Your task to perform on an android device: turn off javascript in the chrome app Image 0: 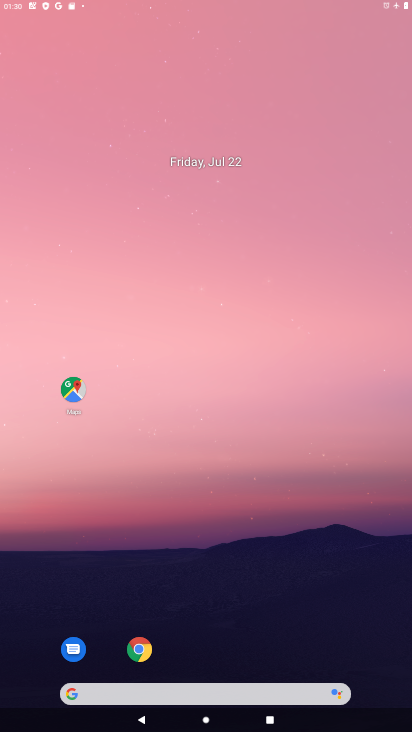
Step 0: drag from (325, 615) to (333, 194)
Your task to perform on an android device: turn off javascript in the chrome app Image 1: 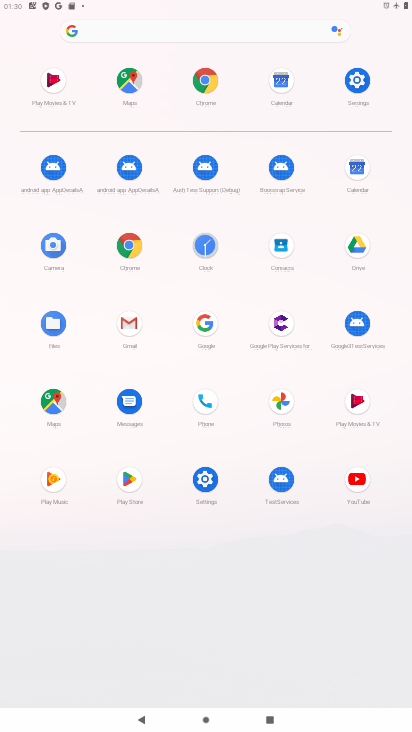
Step 1: click (206, 81)
Your task to perform on an android device: turn off javascript in the chrome app Image 2: 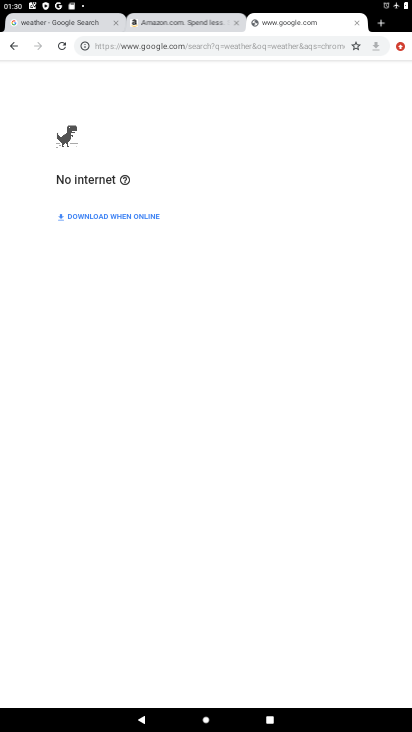
Step 2: drag from (405, 41) to (301, 307)
Your task to perform on an android device: turn off javascript in the chrome app Image 3: 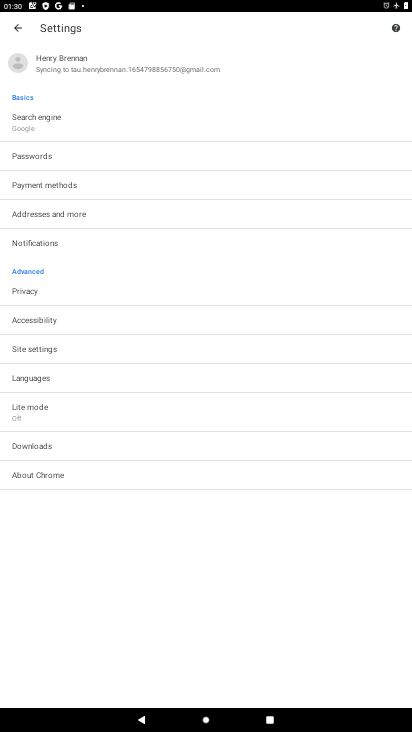
Step 3: click (35, 347)
Your task to perform on an android device: turn off javascript in the chrome app Image 4: 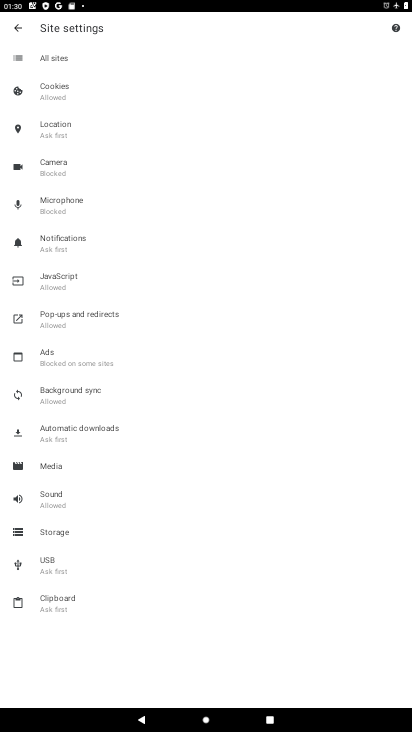
Step 4: click (56, 286)
Your task to perform on an android device: turn off javascript in the chrome app Image 5: 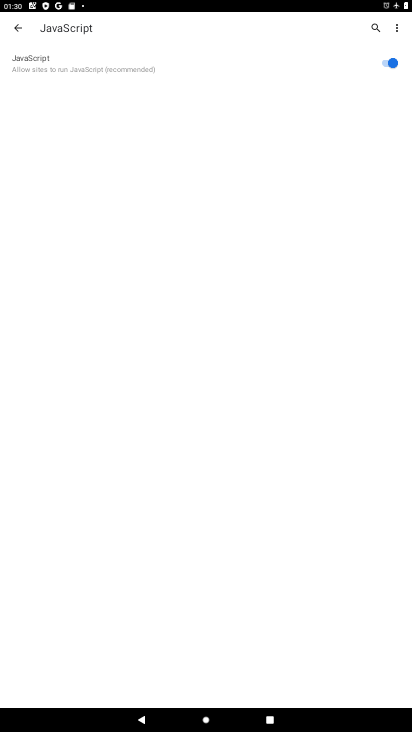
Step 5: click (385, 61)
Your task to perform on an android device: turn off javascript in the chrome app Image 6: 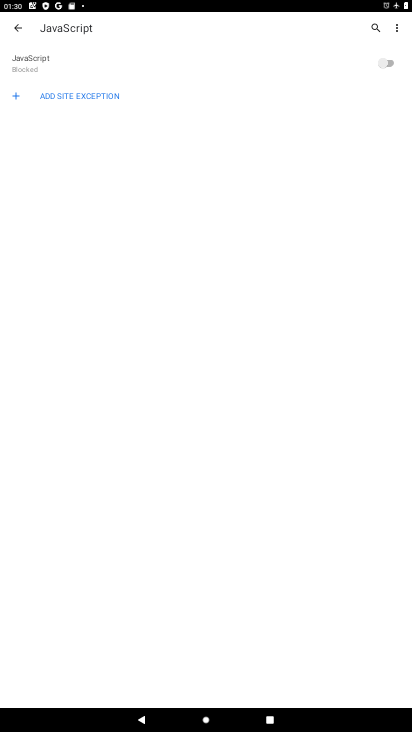
Step 6: task complete